Your task to perform on an android device: open a new tab in the chrome app Image 0: 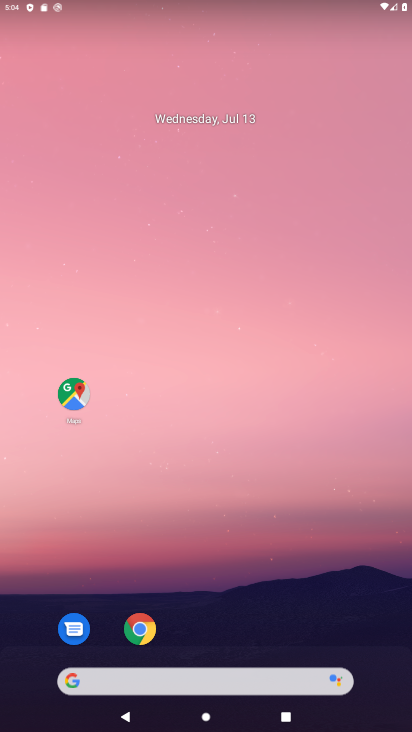
Step 0: drag from (251, 538) to (208, 236)
Your task to perform on an android device: open a new tab in the chrome app Image 1: 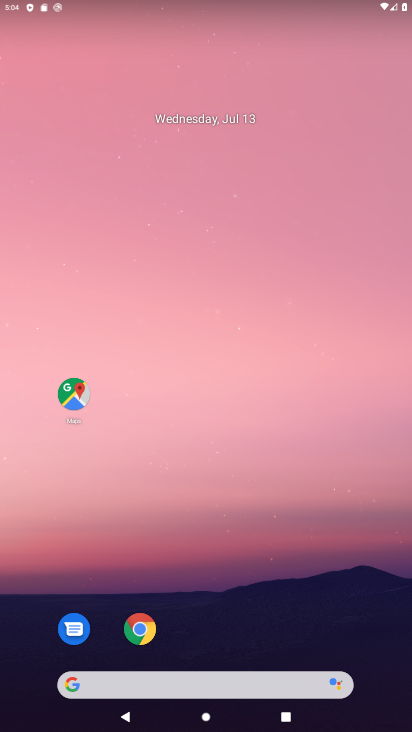
Step 1: drag from (246, 675) to (224, 350)
Your task to perform on an android device: open a new tab in the chrome app Image 2: 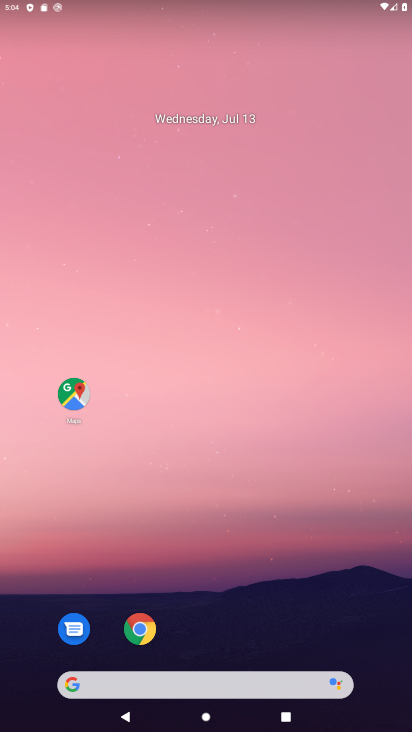
Step 2: click (163, 170)
Your task to perform on an android device: open a new tab in the chrome app Image 3: 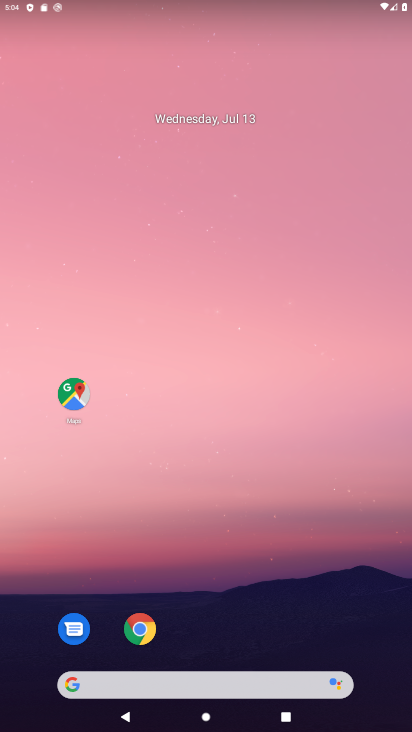
Step 3: drag from (225, 474) to (174, 241)
Your task to perform on an android device: open a new tab in the chrome app Image 4: 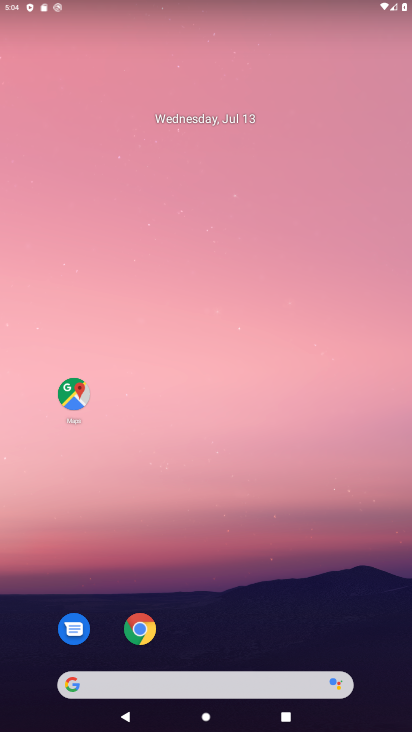
Step 4: drag from (233, 594) to (195, 316)
Your task to perform on an android device: open a new tab in the chrome app Image 5: 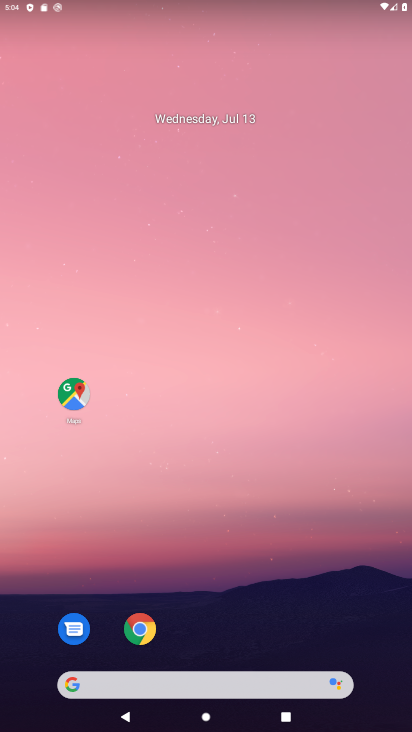
Step 5: click (154, 190)
Your task to perform on an android device: open a new tab in the chrome app Image 6: 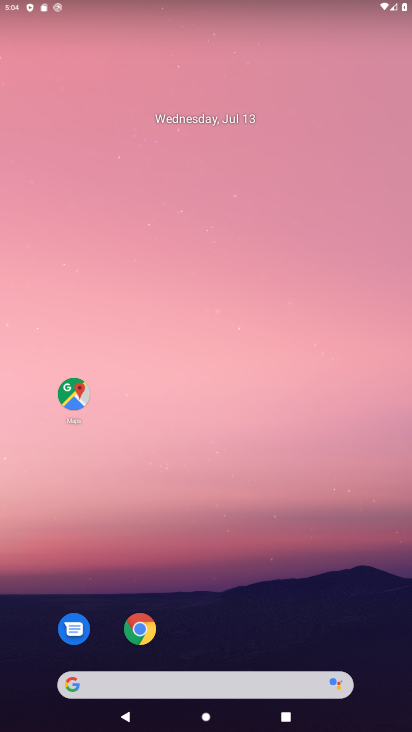
Step 6: click (149, 225)
Your task to perform on an android device: open a new tab in the chrome app Image 7: 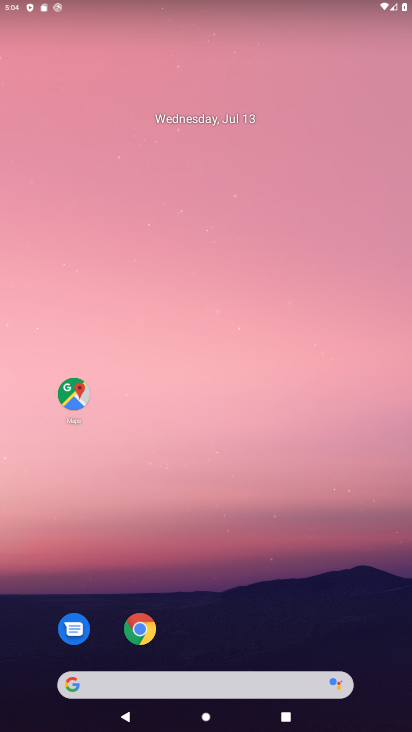
Step 7: drag from (289, 599) to (199, 237)
Your task to perform on an android device: open a new tab in the chrome app Image 8: 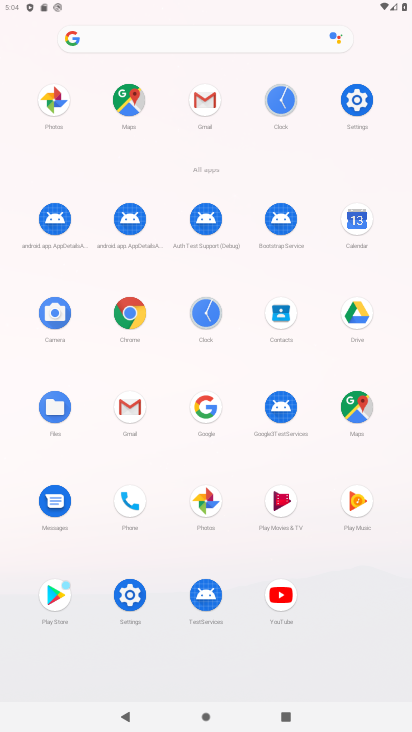
Step 8: click (126, 314)
Your task to perform on an android device: open a new tab in the chrome app Image 9: 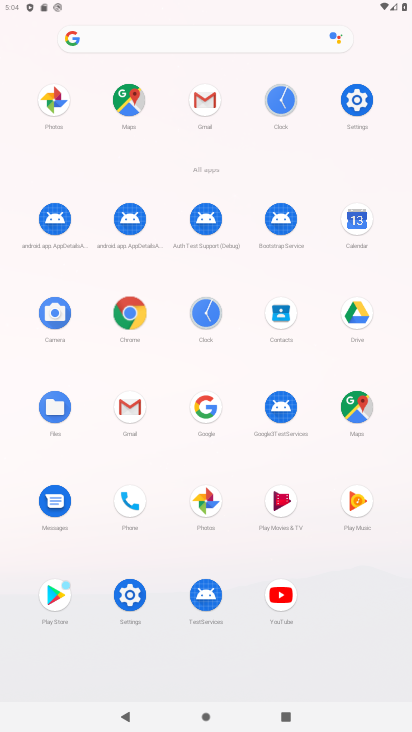
Step 9: click (127, 314)
Your task to perform on an android device: open a new tab in the chrome app Image 10: 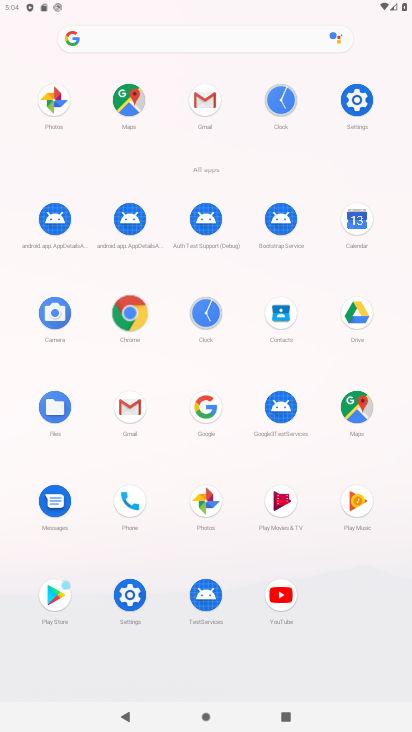
Step 10: click (128, 314)
Your task to perform on an android device: open a new tab in the chrome app Image 11: 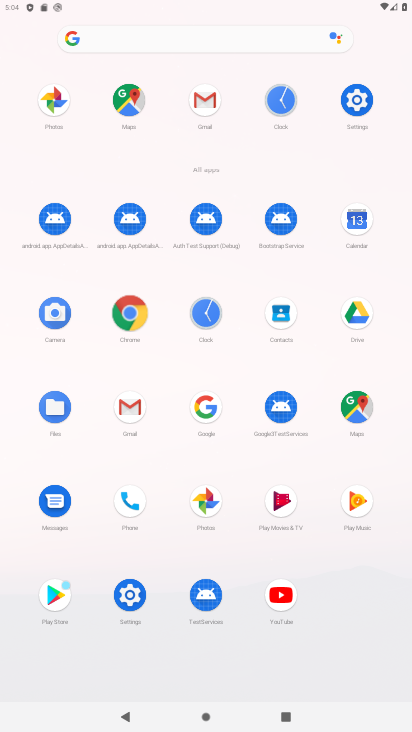
Step 11: click (129, 314)
Your task to perform on an android device: open a new tab in the chrome app Image 12: 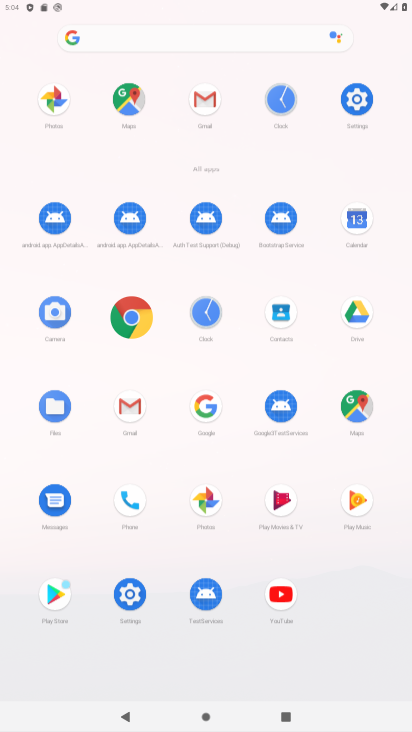
Step 12: click (129, 317)
Your task to perform on an android device: open a new tab in the chrome app Image 13: 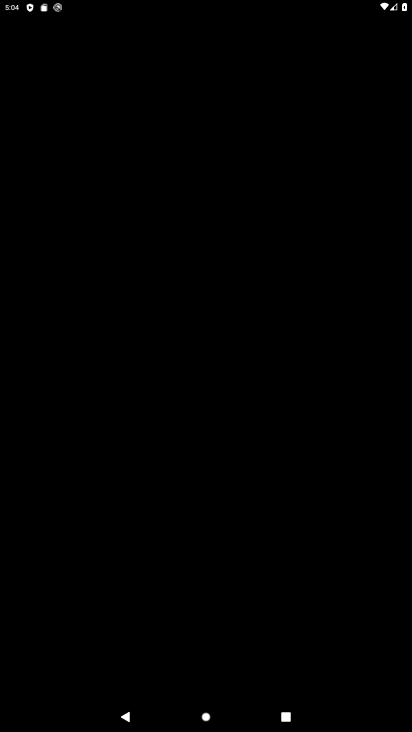
Step 13: click (134, 308)
Your task to perform on an android device: open a new tab in the chrome app Image 14: 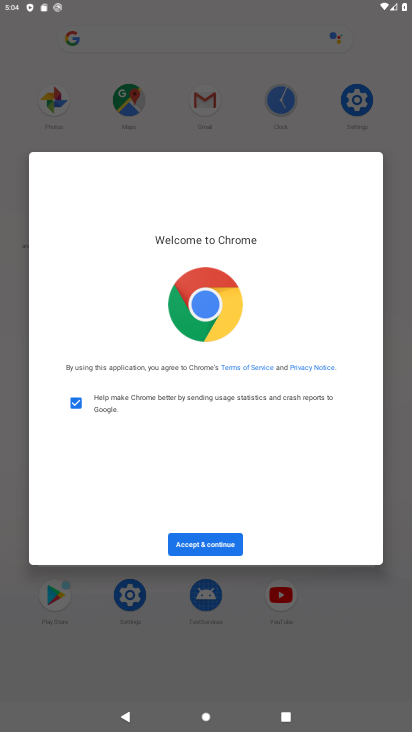
Step 14: click (195, 537)
Your task to perform on an android device: open a new tab in the chrome app Image 15: 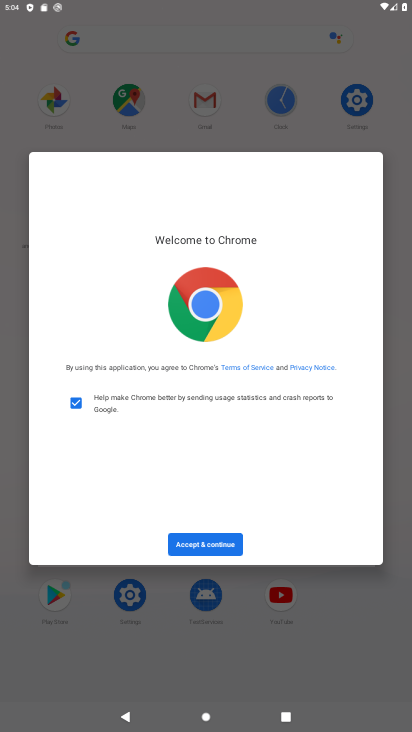
Step 15: click (195, 537)
Your task to perform on an android device: open a new tab in the chrome app Image 16: 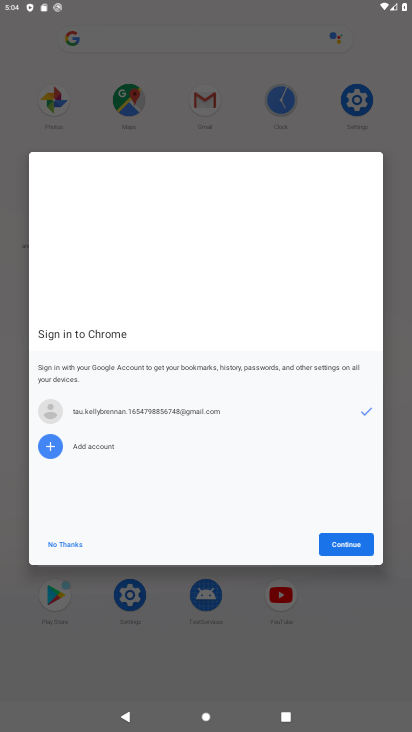
Step 16: click (206, 549)
Your task to perform on an android device: open a new tab in the chrome app Image 17: 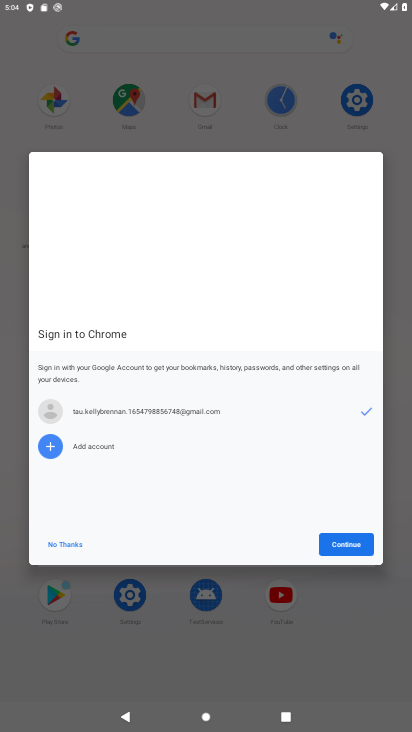
Step 17: click (214, 540)
Your task to perform on an android device: open a new tab in the chrome app Image 18: 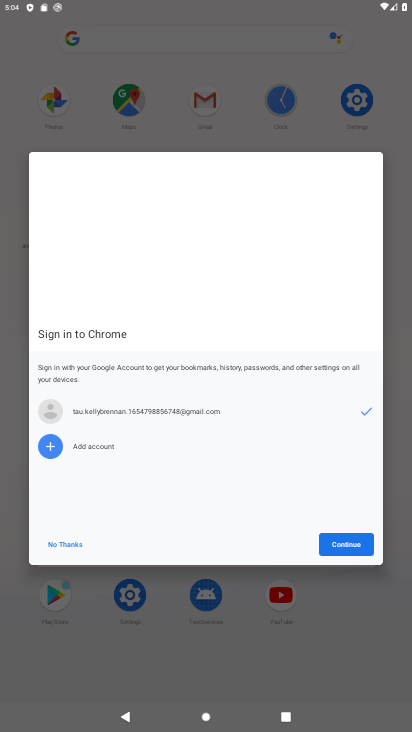
Step 18: click (216, 537)
Your task to perform on an android device: open a new tab in the chrome app Image 19: 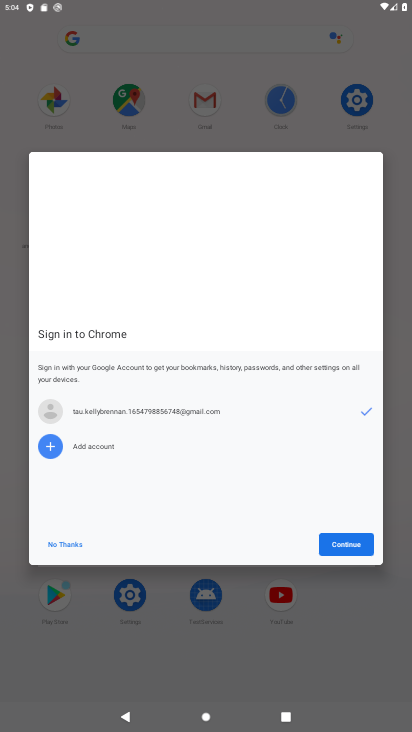
Step 19: click (369, 537)
Your task to perform on an android device: open a new tab in the chrome app Image 20: 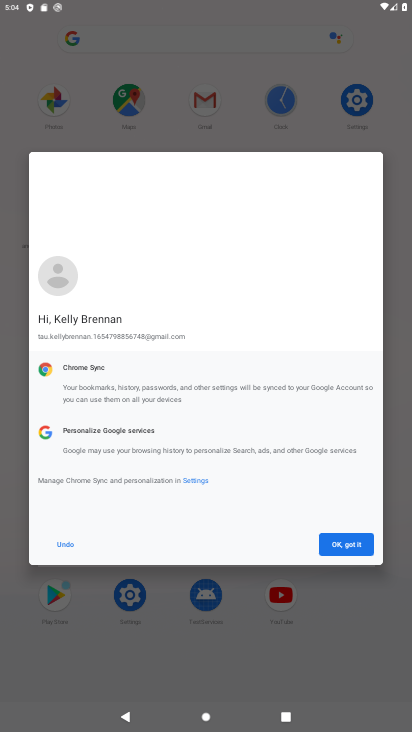
Step 20: click (349, 546)
Your task to perform on an android device: open a new tab in the chrome app Image 21: 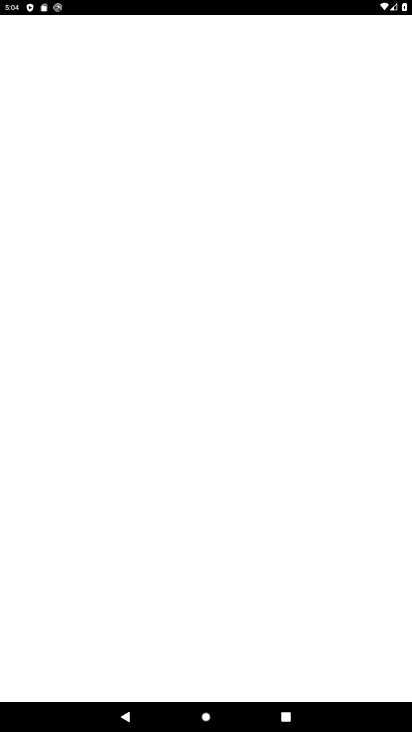
Step 21: click (351, 535)
Your task to perform on an android device: open a new tab in the chrome app Image 22: 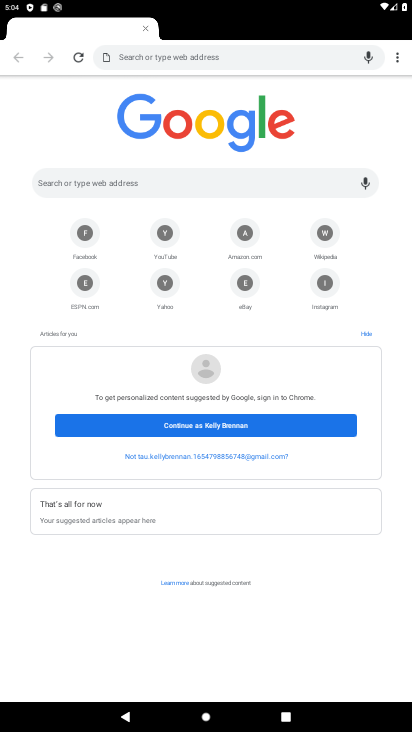
Step 22: drag from (391, 58) to (274, 53)
Your task to perform on an android device: open a new tab in the chrome app Image 23: 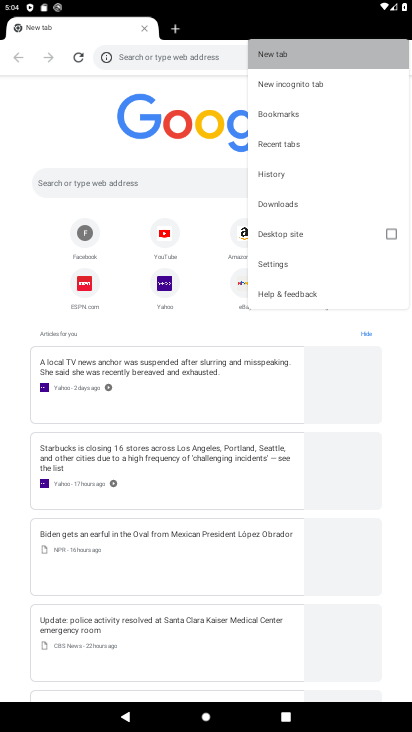
Step 23: click (272, 50)
Your task to perform on an android device: open a new tab in the chrome app Image 24: 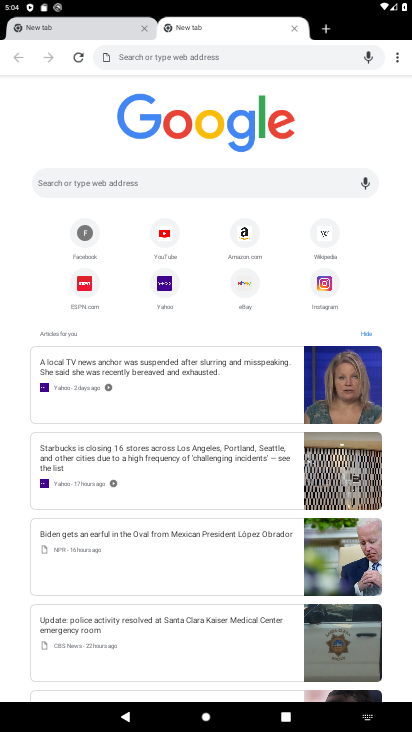
Step 24: task complete